Your task to perform on an android device: Show me the best basketball shoes on Nike.com Image 0: 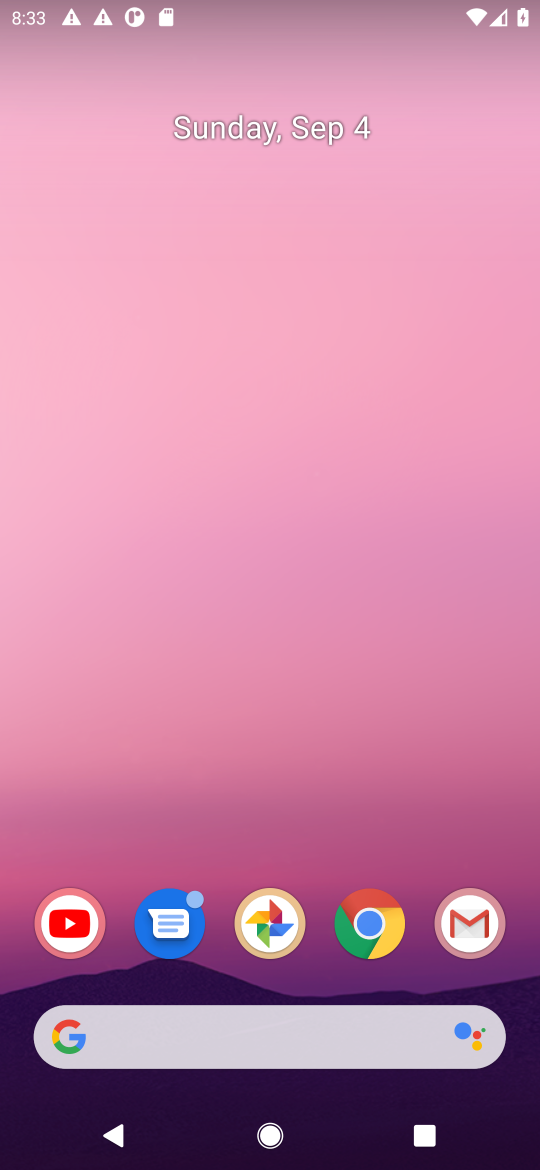
Step 0: click (360, 920)
Your task to perform on an android device: Show me the best basketball shoes on Nike.com Image 1: 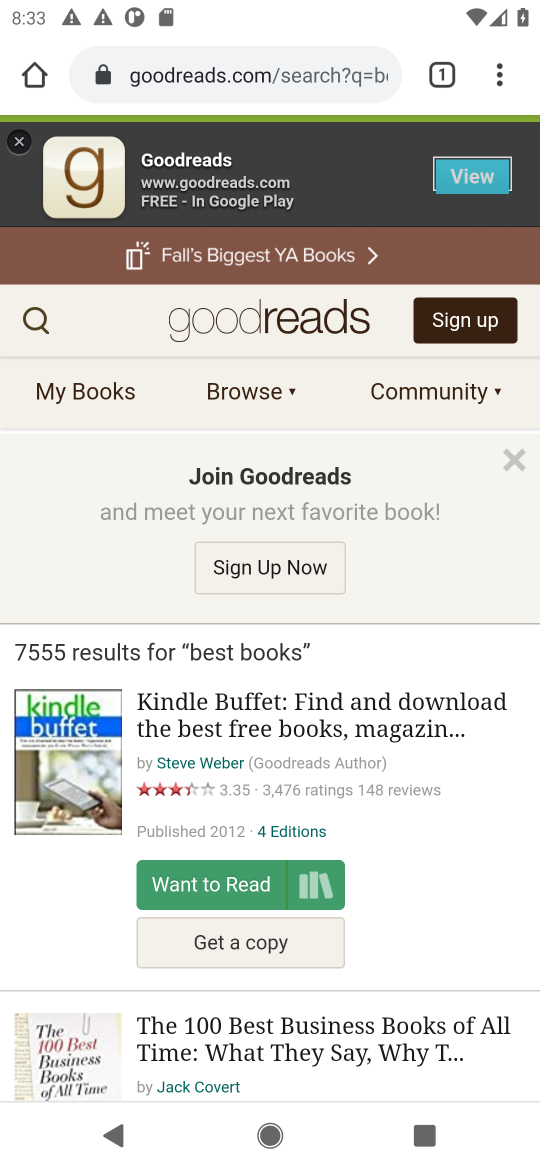
Step 1: click (252, 96)
Your task to perform on an android device: Show me the best basketball shoes on Nike.com Image 2: 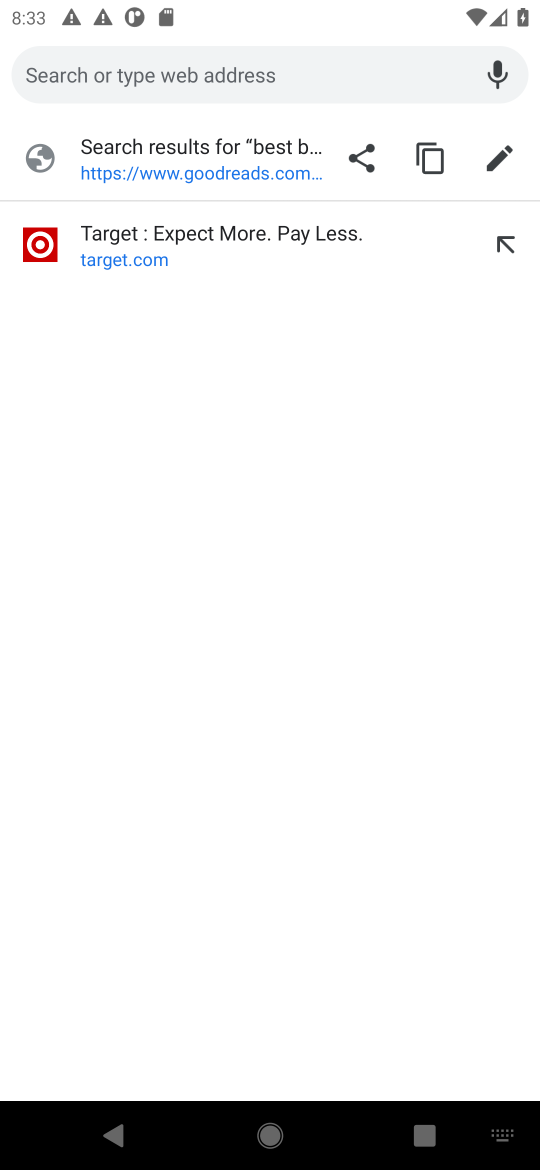
Step 2: type "nike.com"
Your task to perform on an android device: Show me the best basketball shoes on Nike.com Image 3: 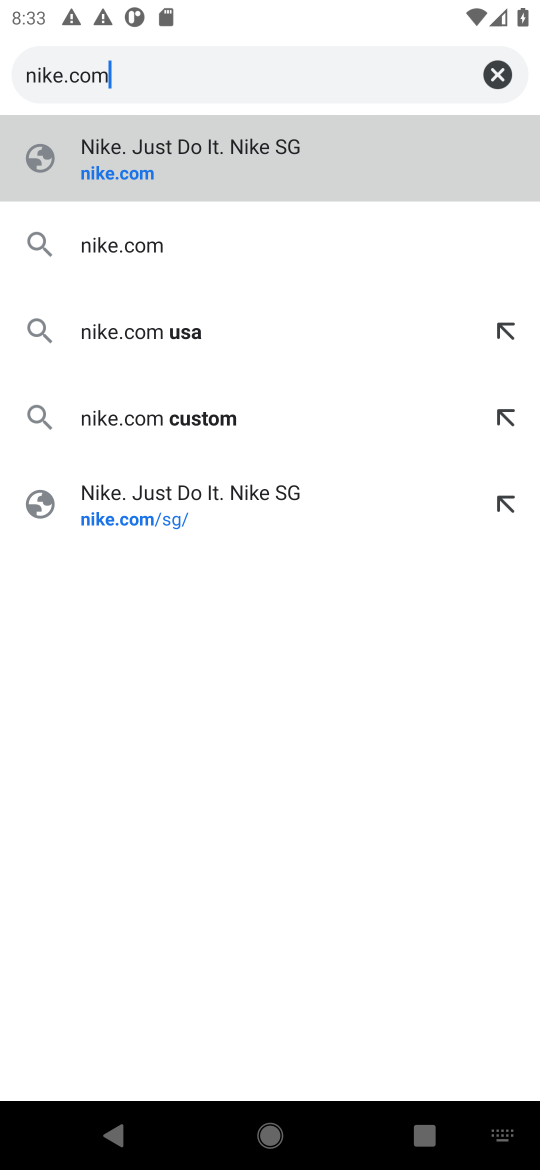
Step 3: click (137, 148)
Your task to perform on an android device: Show me the best basketball shoes on Nike.com Image 4: 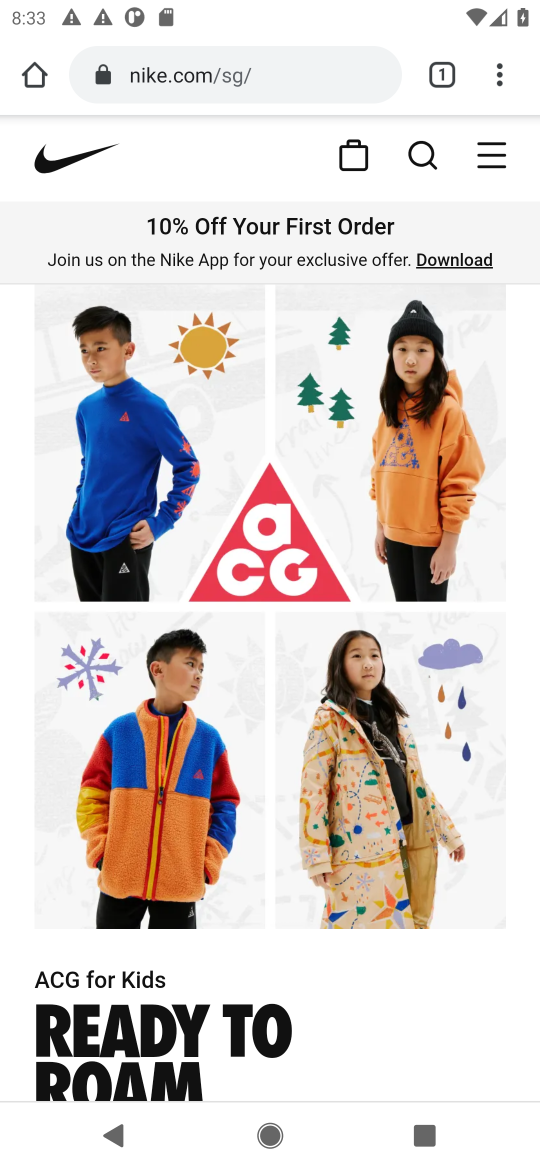
Step 4: click (432, 158)
Your task to perform on an android device: Show me the best basketball shoes on Nike.com Image 5: 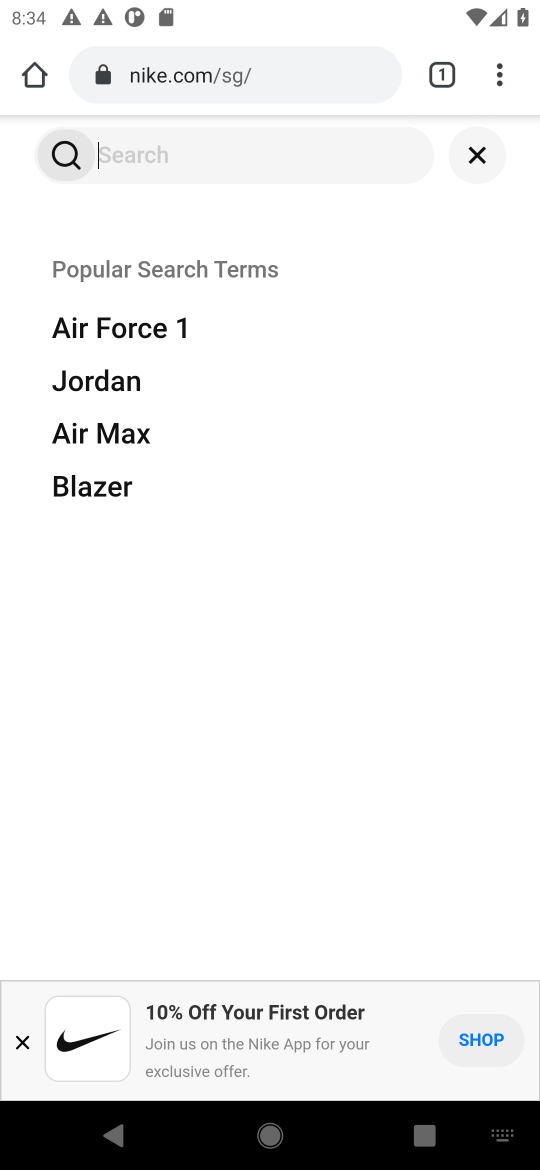
Step 5: type "best basketball shoes"
Your task to perform on an android device: Show me the best basketball shoes on Nike.com Image 6: 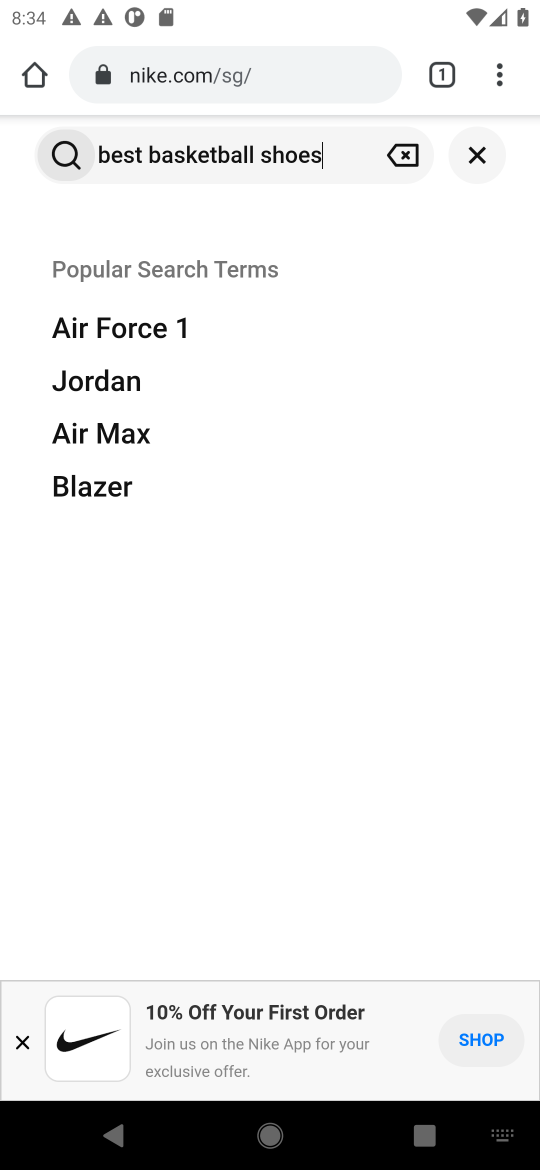
Step 6: press enter
Your task to perform on an android device: Show me the best basketball shoes on Nike.com Image 7: 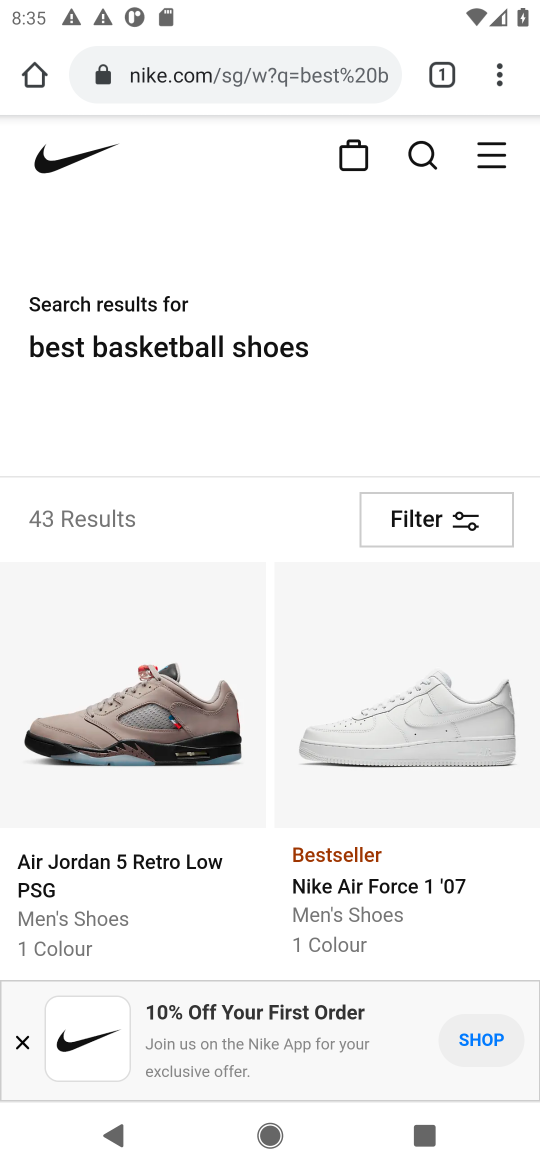
Step 7: task complete